Your task to perform on an android device: Go to network settings Image 0: 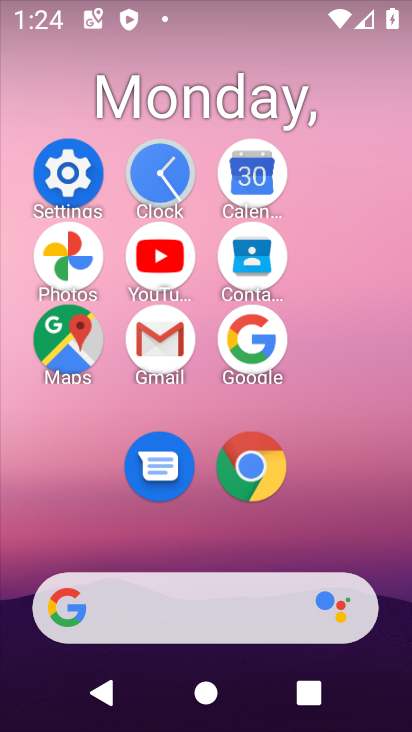
Step 0: click (62, 177)
Your task to perform on an android device: Go to network settings Image 1: 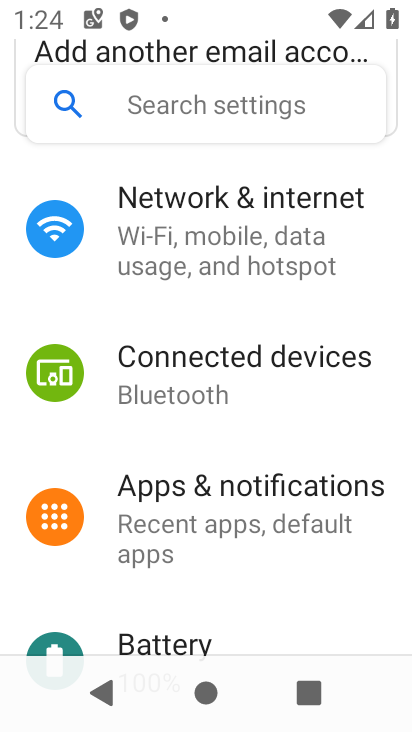
Step 1: click (279, 228)
Your task to perform on an android device: Go to network settings Image 2: 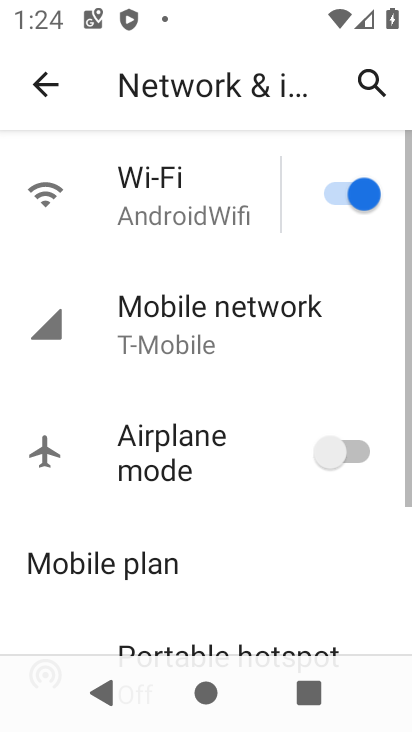
Step 2: task complete